Your task to perform on an android device: Open internet settings Image 0: 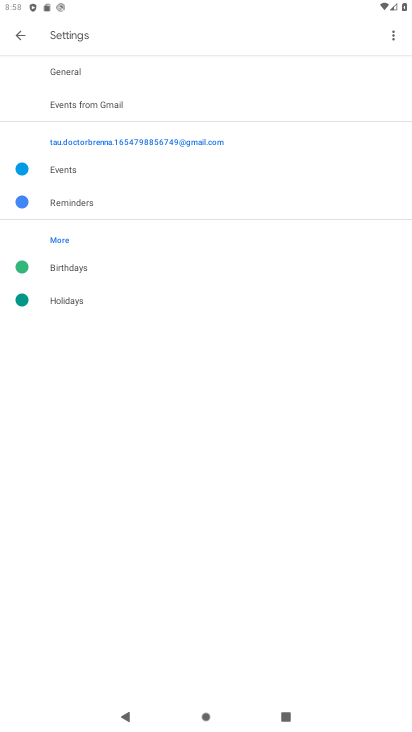
Step 0: press home button
Your task to perform on an android device: Open internet settings Image 1: 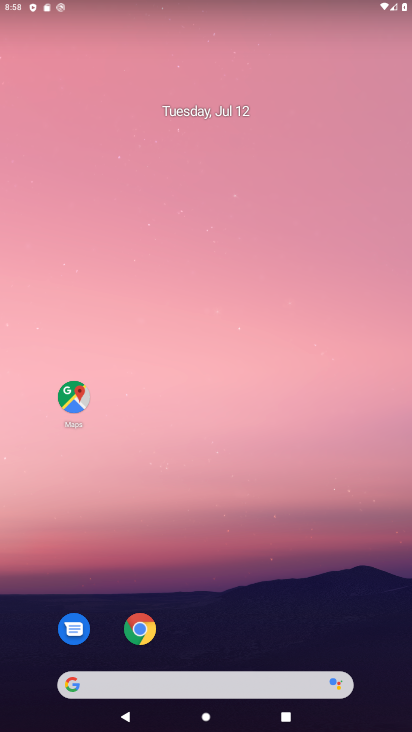
Step 1: drag from (316, 546) to (208, 7)
Your task to perform on an android device: Open internet settings Image 2: 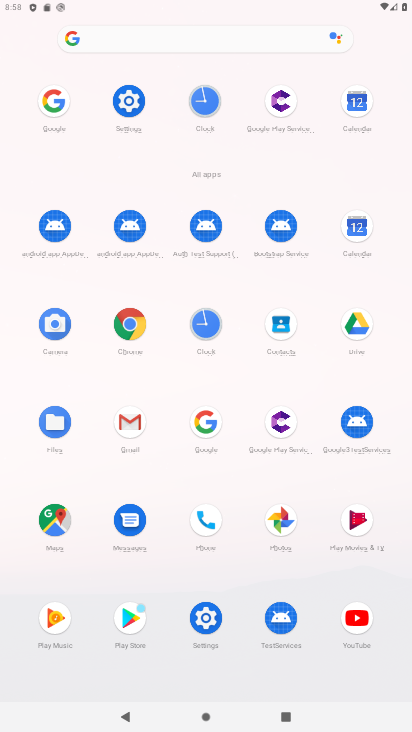
Step 2: click (207, 611)
Your task to perform on an android device: Open internet settings Image 3: 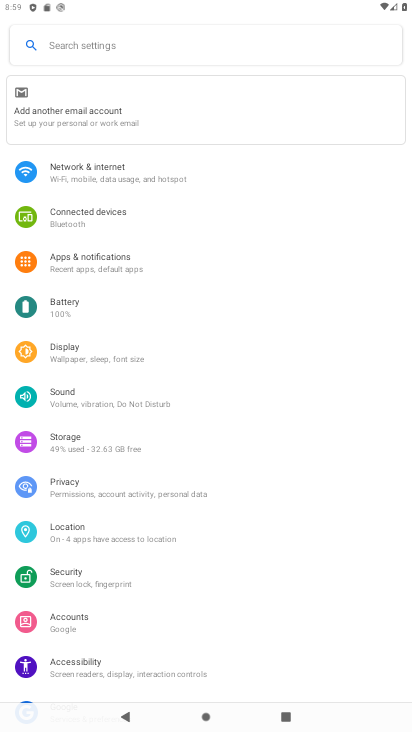
Step 3: task complete